Your task to perform on an android device: Open notification settings Image 0: 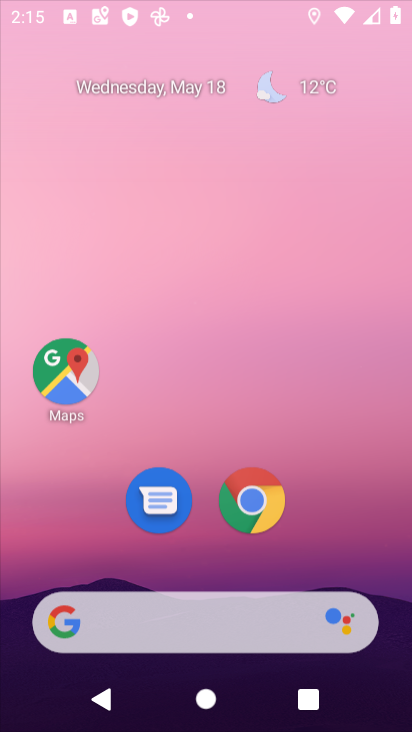
Step 0: drag from (395, 604) to (322, 88)
Your task to perform on an android device: Open notification settings Image 1: 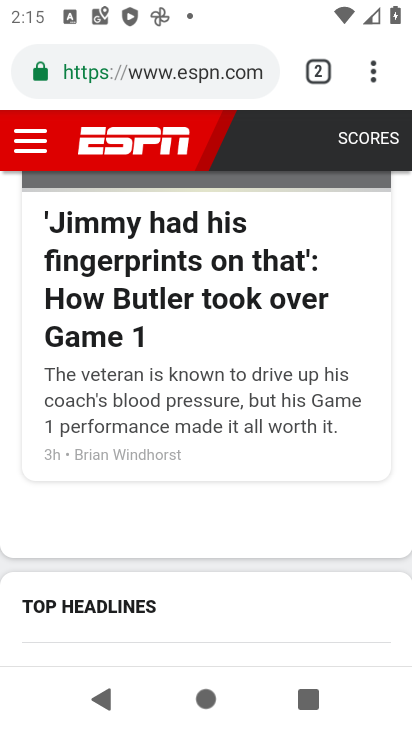
Step 1: press home button
Your task to perform on an android device: Open notification settings Image 2: 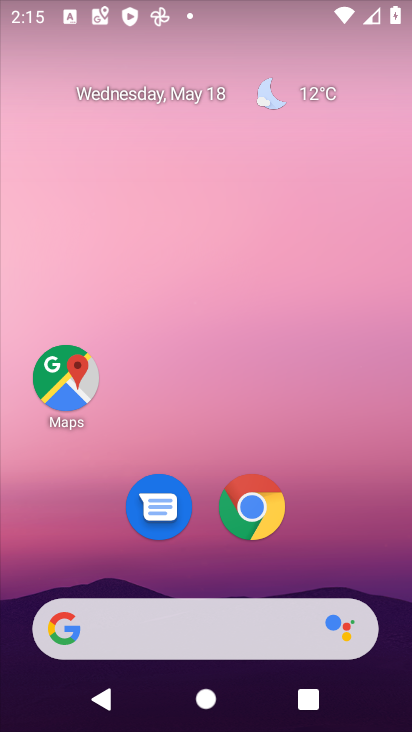
Step 2: drag from (397, 630) to (304, 117)
Your task to perform on an android device: Open notification settings Image 3: 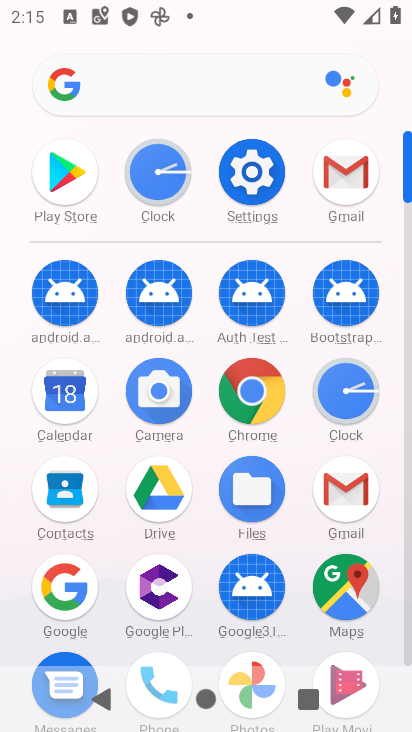
Step 3: click (408, 646)
Your task to perform on an android device: Open notification settings Image 4: 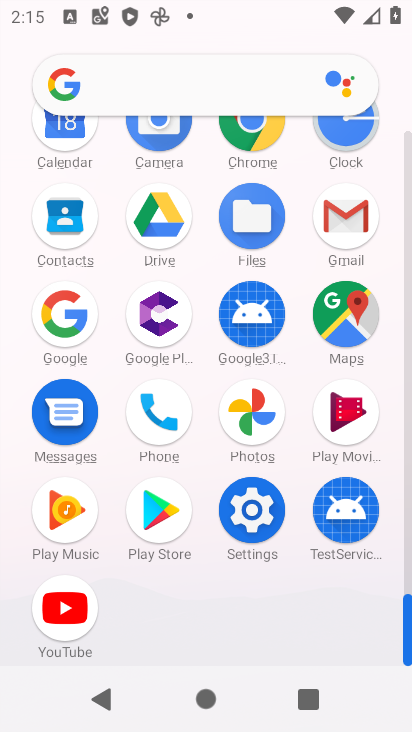
Step 4: click (251, 513)
Your task to perform on an android device: Open notification settings Image 5: 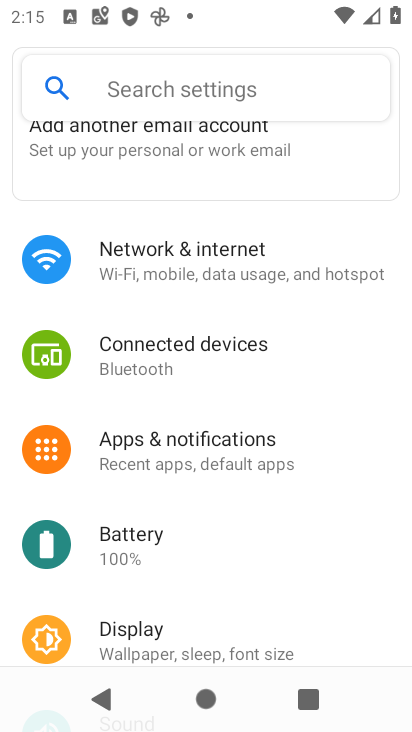
Step 5: click (186, 457)
Your task to perform on an android device: Open notification settings Image 6: 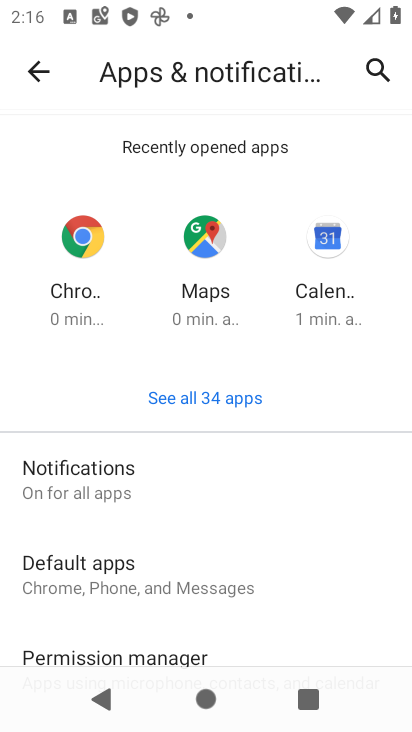
Step 6: click (67, 461)
Your task to perform on an android device: Open notification settings Image 7: 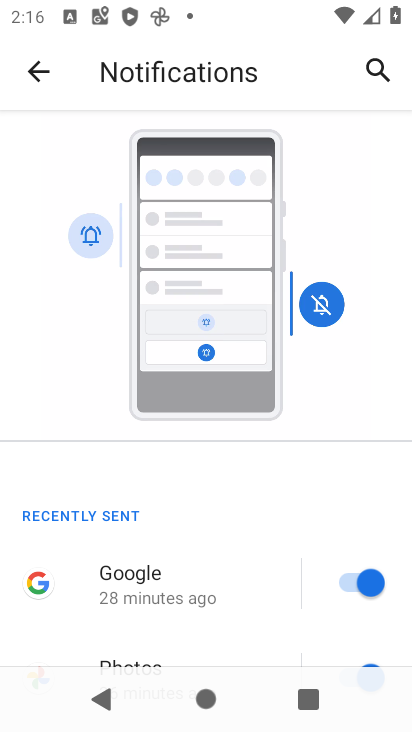
Step 7: drag from (290, 641) to (229, 147)
Your task to perform on an android device: Open notification settings Image 8: 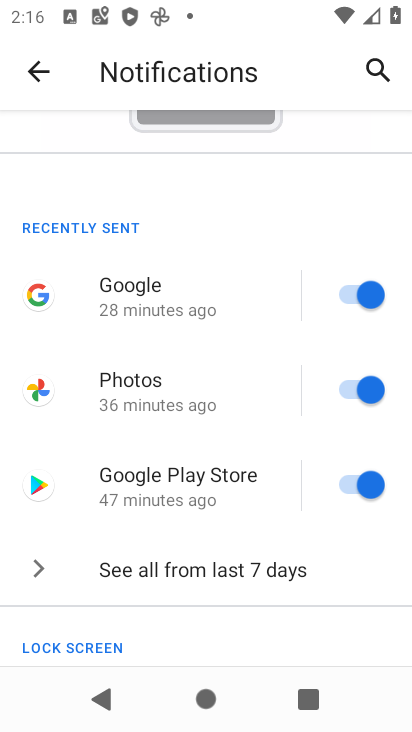
Step 8: drag from (294, 561) to (234, 112)
Your task to perform on an android device: Open notification settings Image 9: 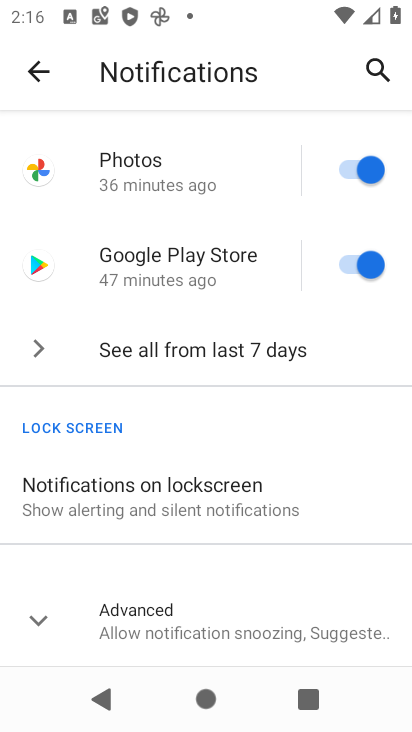
Step 9: click (34, 611)
Your task to perform on an android device: Open notification settings Image 10: 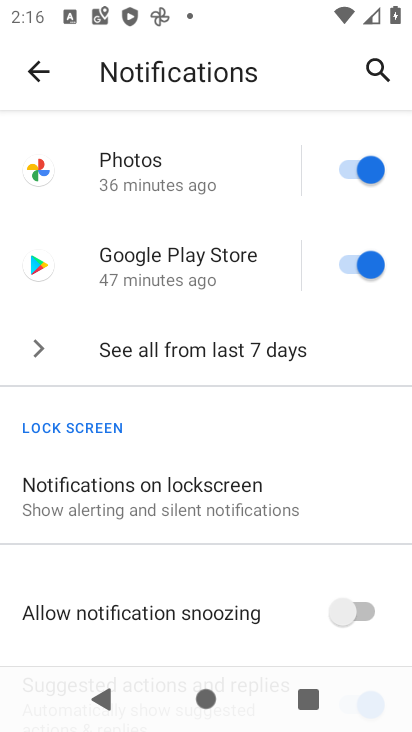
Step 10: task complete